Your task to perform on an android device: Open notification settings Image 0: 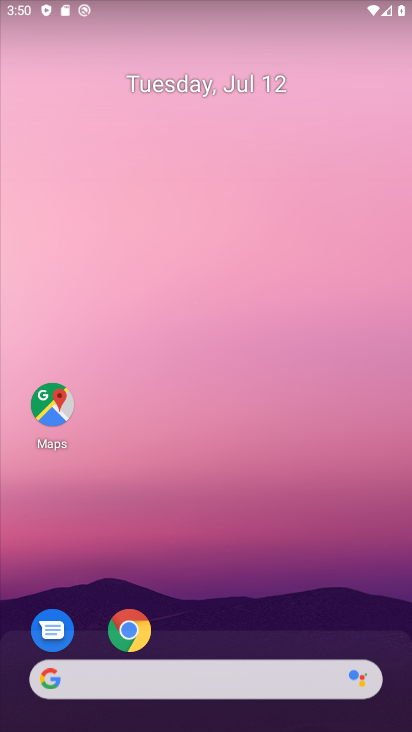
Step 0: drag from (353, 596) to (264, 0)
Your task to perform on an android device: Open notification settings Image 1: 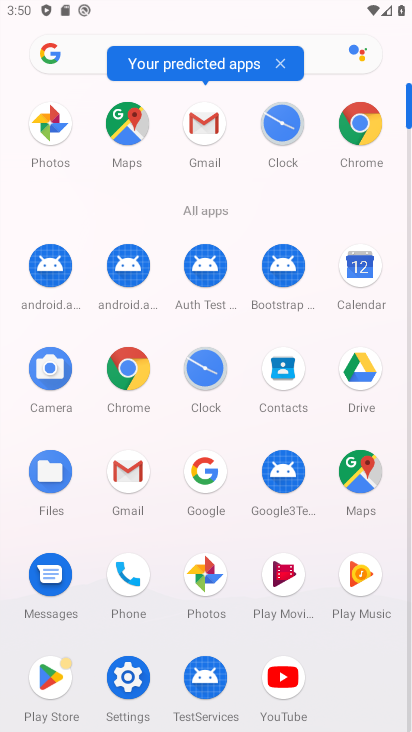
Step 1: click (127, 671)
Your task to perform on an android device: Open notification settings Image 2: 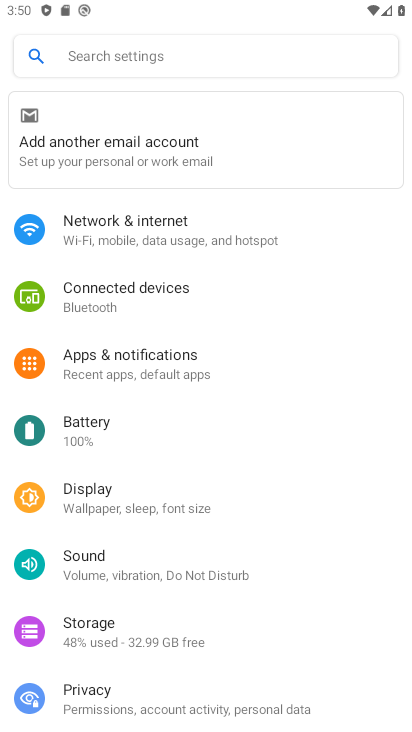
Step 2: click (174, 381)
Your task to perform on an android device: Open notification settings Image 3: 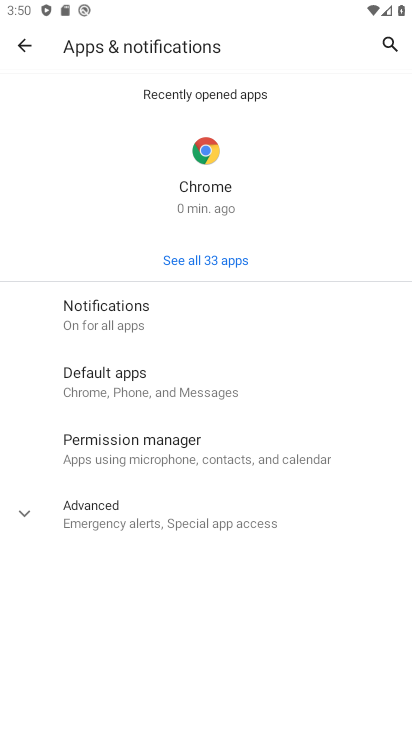
Step 3: click (181, 294)
Your task to perform on an android device: Open notification settings Image 4: 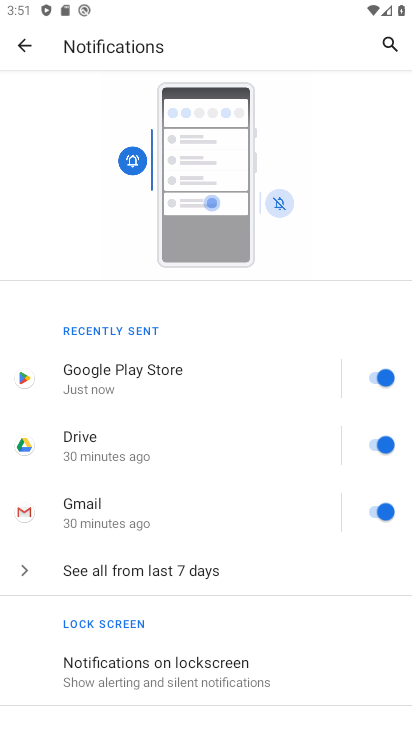
Step 4: task complete